Your task to perform on an android device: toggle javascript in the chrome app Image 0: 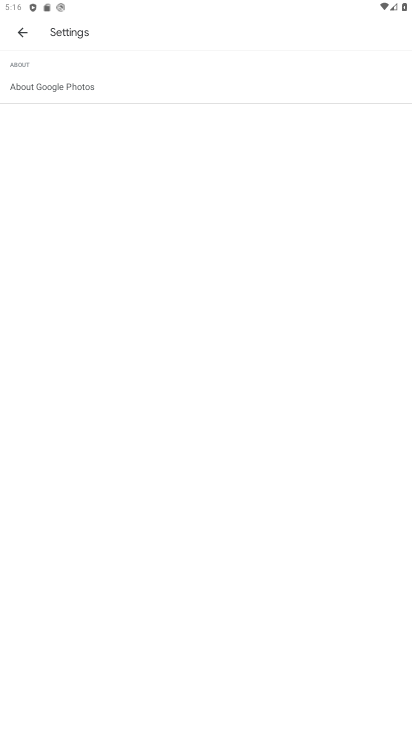
Step 0: press home button
Your task to perform on an android device: toggle javascript in the chrome app Image 1: 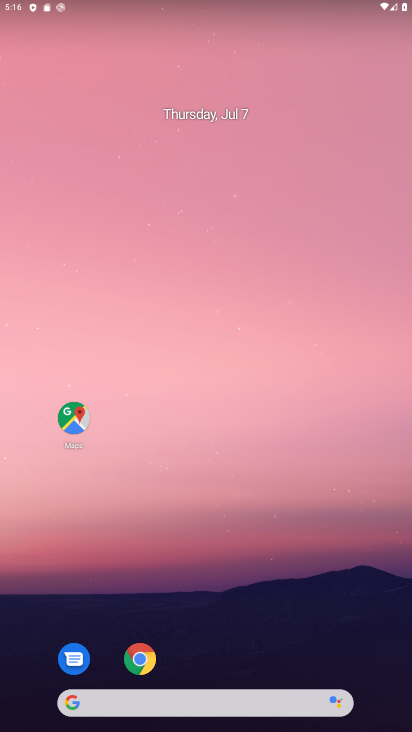
Step 1: drag from (234, 624) to (306, 55)
Your task to perform on an android device: toggle javascript in the chrome app Image 2: 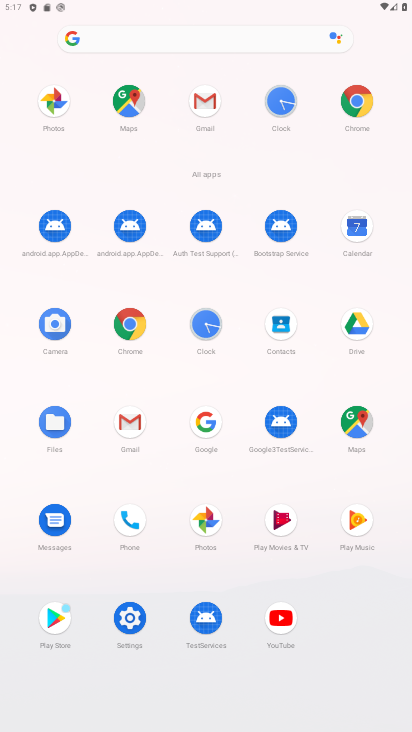
Step 2: click (351, 113)
Your task to perform on an android device: toggle javascript in the chrome app Image 3: 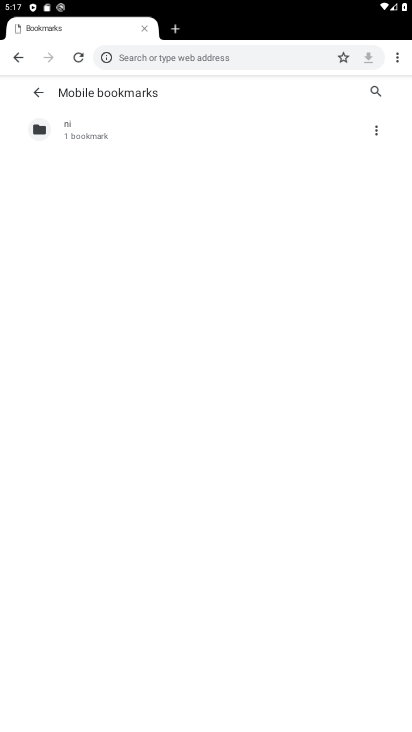
Step 3: click (400, 57)
Your task to perform on an android device: toggle javascript in the chrome app Image 4: 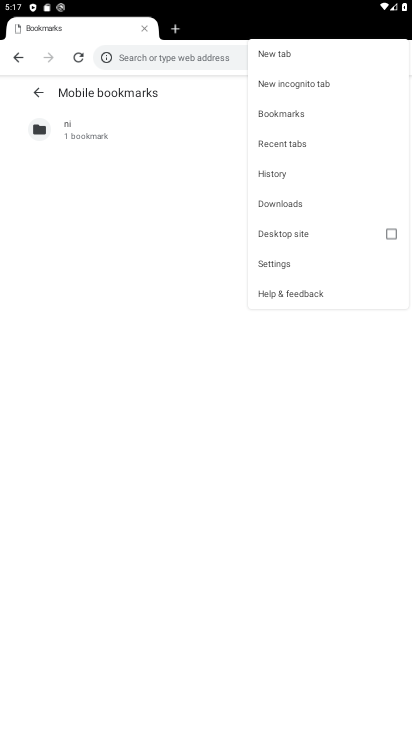
Step 4: click (273, 266)
Your task to perform on an android device: toggle javascript in the chrome app Image 5: 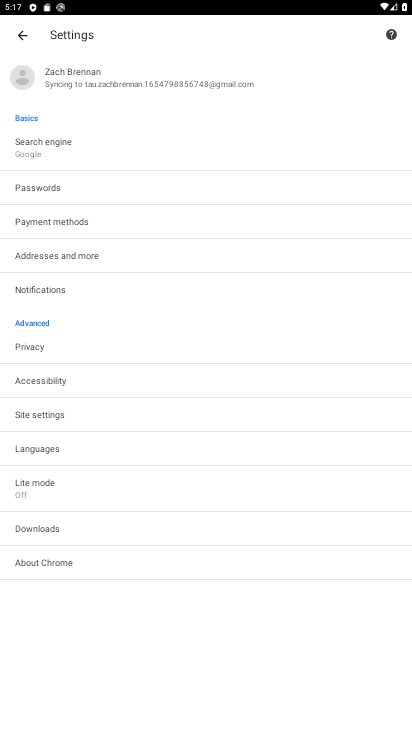
Step 5: click (50, 418)
Your task to perform on an android device: toggle javascript in the chrome app Image 6: 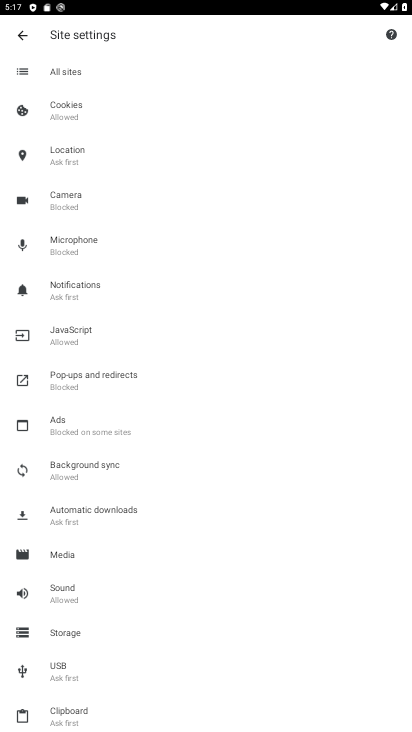
Step 6: click (103, 331)
Your task to perform on an android device: toggle javascript in the chrome app Image 7: 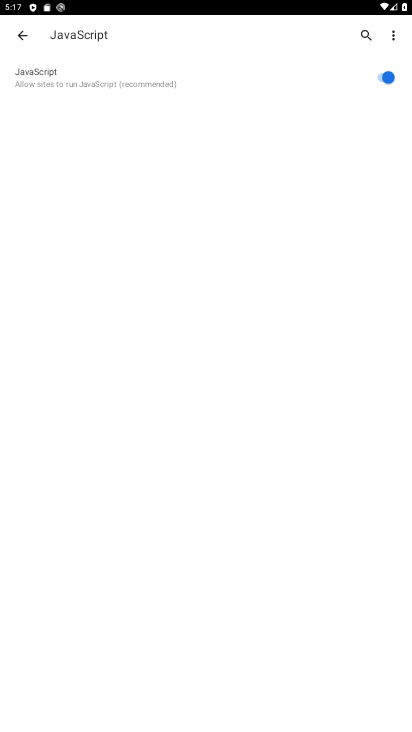
Step 7: click (385, 71)
Your task to perform on an android device: toggle javascript in the chrome app Image 8: 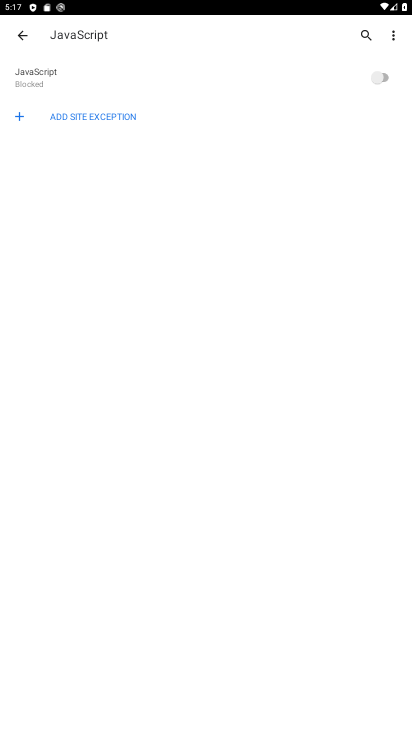
Step 8: task complete